Your task to perform on an android device: turn off picture-in-picture Image 0: 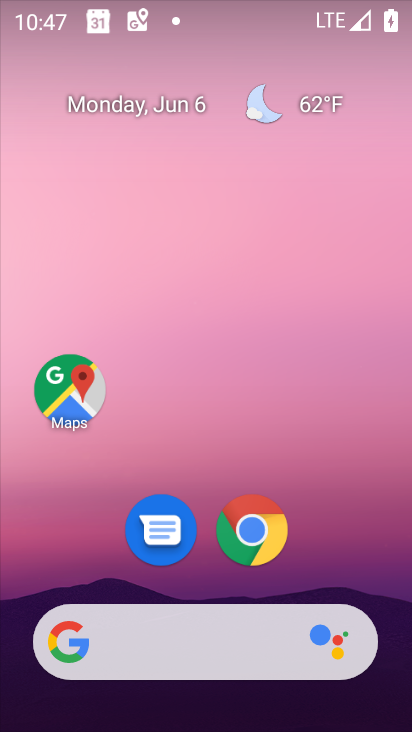
Step 0: click (255, 535)
Your task to perform on an android device: turn off picture-in-picture Image 1: 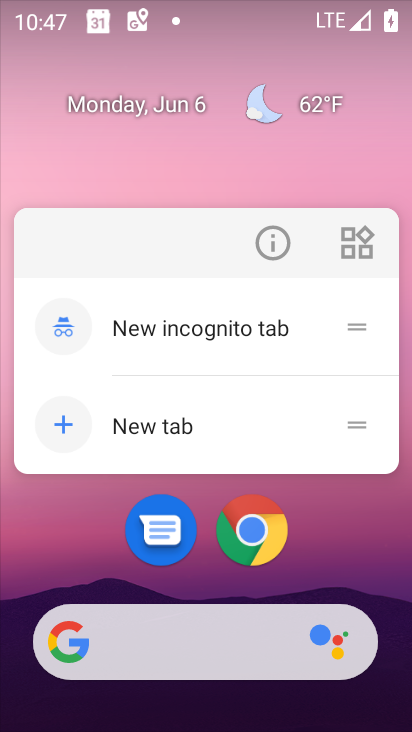
Step 1: click (265, 245)
Your task to perform on an android device: turn off picture-in-picture Image 2: 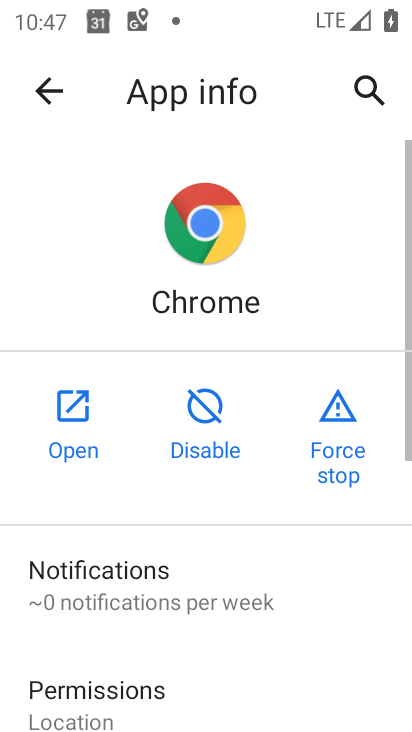
Step 2: drag from (244, 690) to (269, 148)
Your task to perform on an android device: turn off picture-in-picture Image 3: 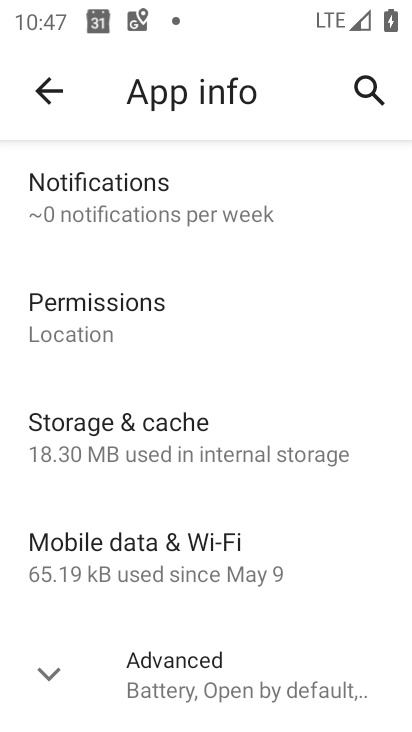
Step 3: click (168, 680)
Your task to perform on an android device: turn off picture-in-picture Image 4: 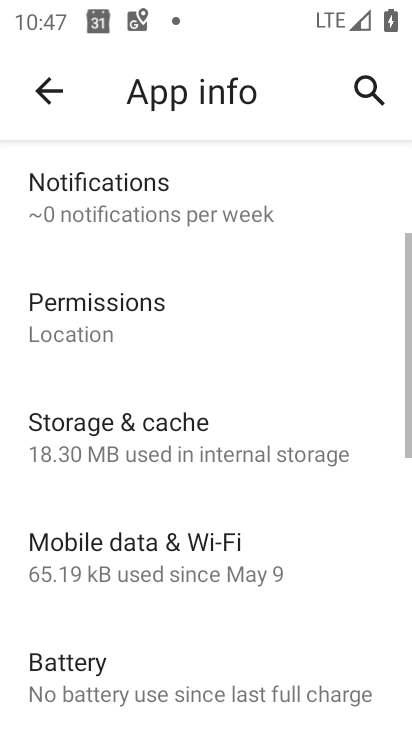
Step 4: drag from (299, 652) to (270, 138)
Your task to perform on an android device: turn off picture-in-picture Image 5: 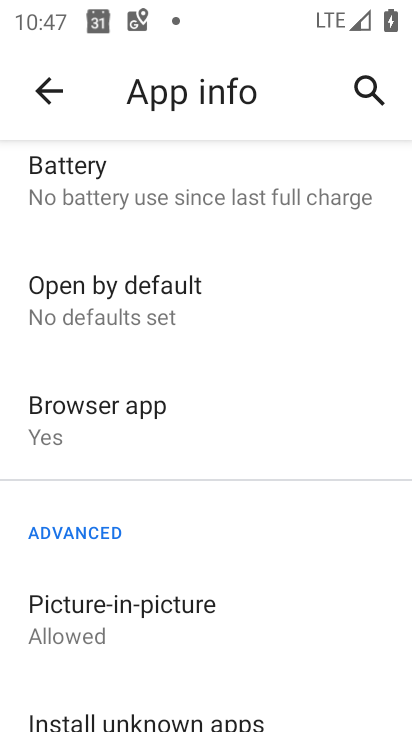
Step 5: click (75, 627)
Your task to perform on an android device: turn off picture-in-picture Image 6: 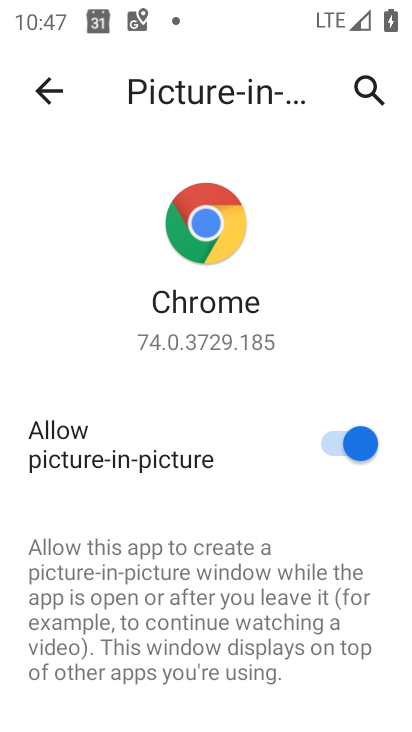
Step 6: click (359, 445)
Your task to perform on an android device: turn off picture-in-picture Image 7: 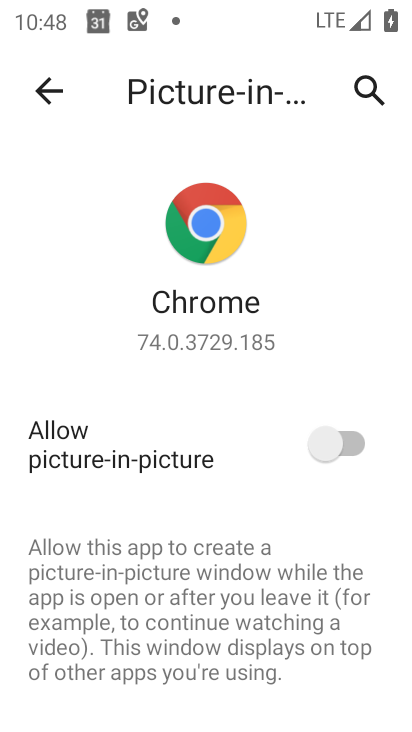
Step 7: task complete